Your task to perform on an android device: Open a new Chrome incognito window Image 0: 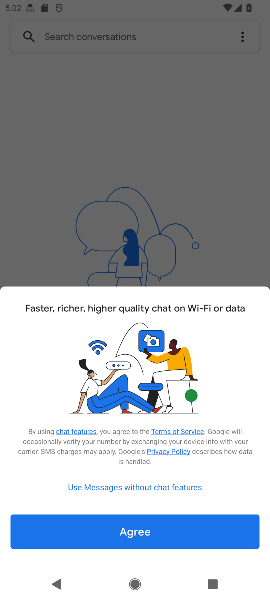
Step 0: press home button
Your task to perform on an android device: Open a new Chrome incognito window Image 1: 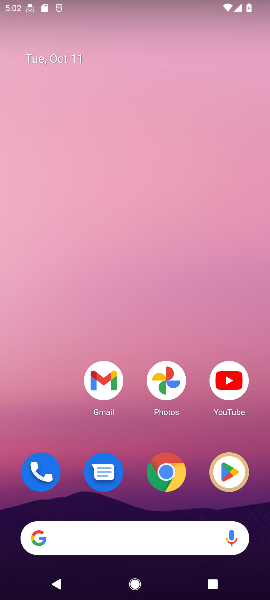
Step 1: click (165, 464)
Your task to perform on an android device: Open a new Chrome incognito window Image 2: 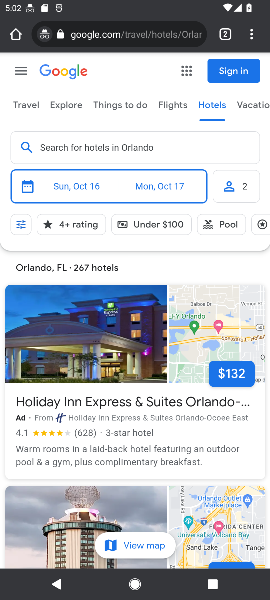
Step 2: click (261, 27)
Your task to perform on an android device: Open a new Chrome incognito window Image 3: 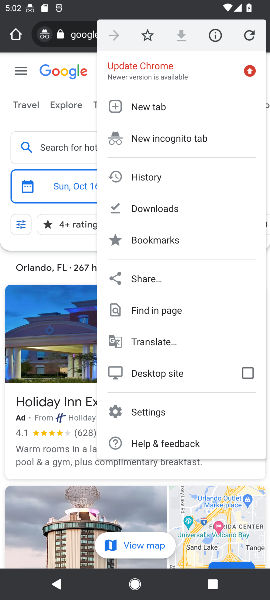
Step 3: click (201, 133)
Your task to perform on an android device: Open a new Chrome incognito window Image 4: 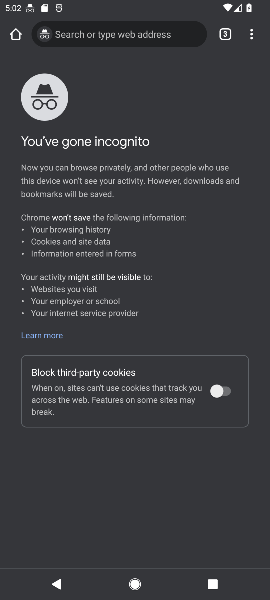
Step 4: task complete